Your task to perform on an android device: allow notifications from all sites in the chrome app Image 0: 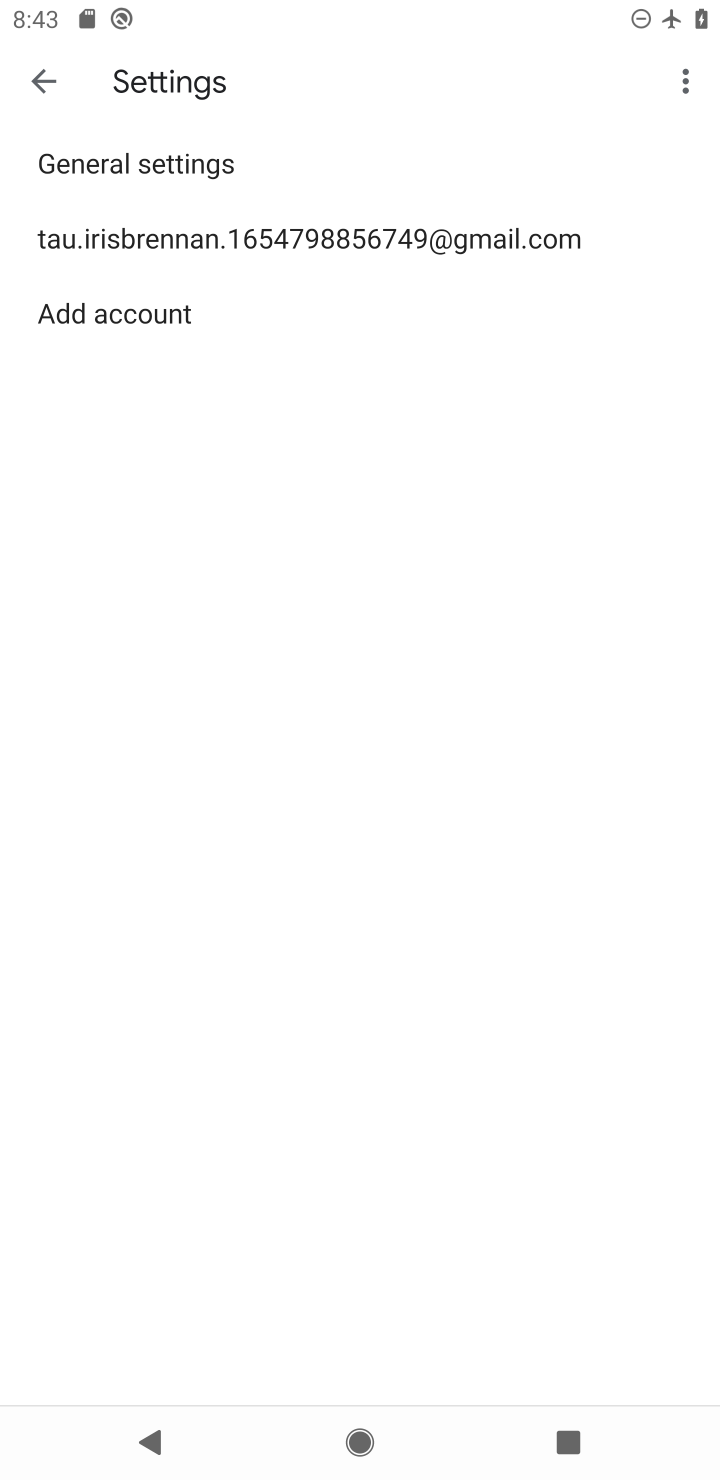
Step 0: press home button
Your task to perform on an android device: allow notifications from all sites in the chrome app Image 1: 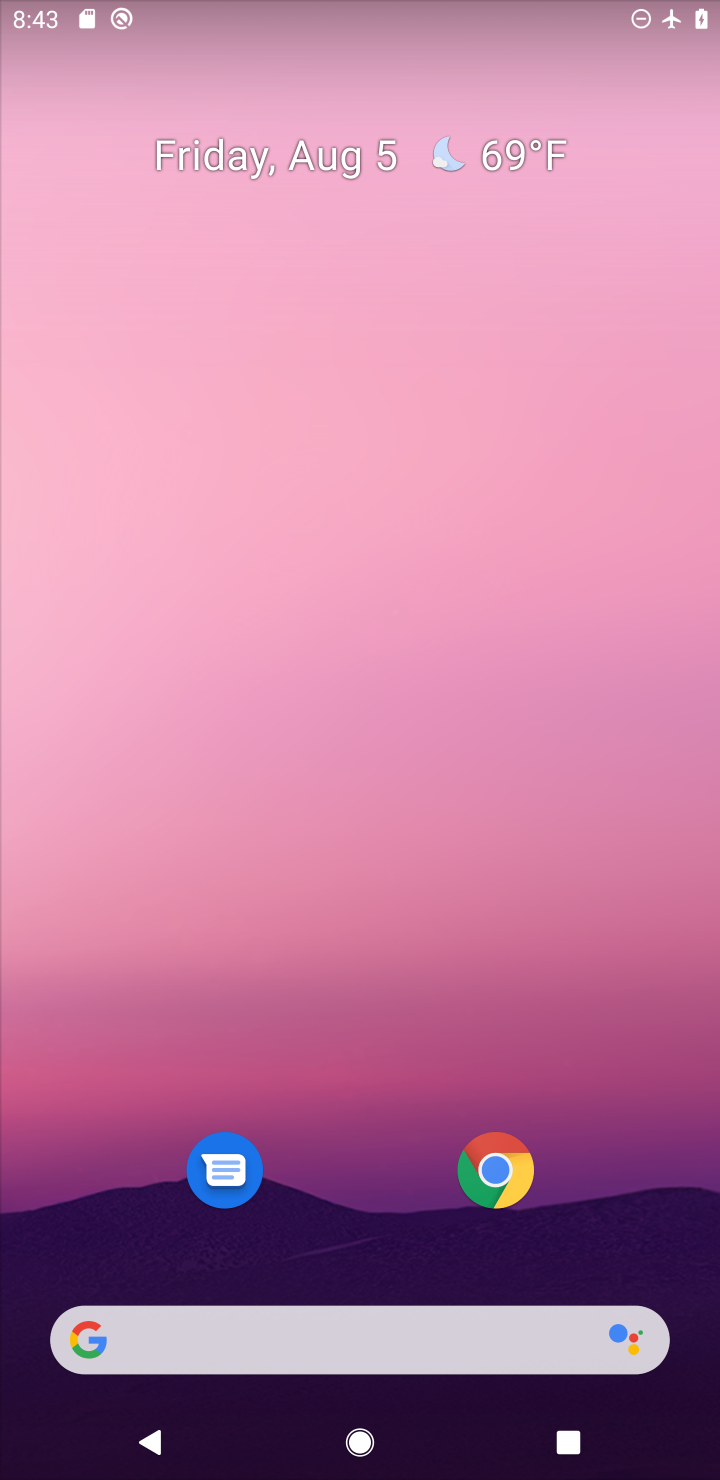
Step 1: click (509, 1178)
Your task to perform on an android device: allow notifications from all sites in the chrome app Image 2: 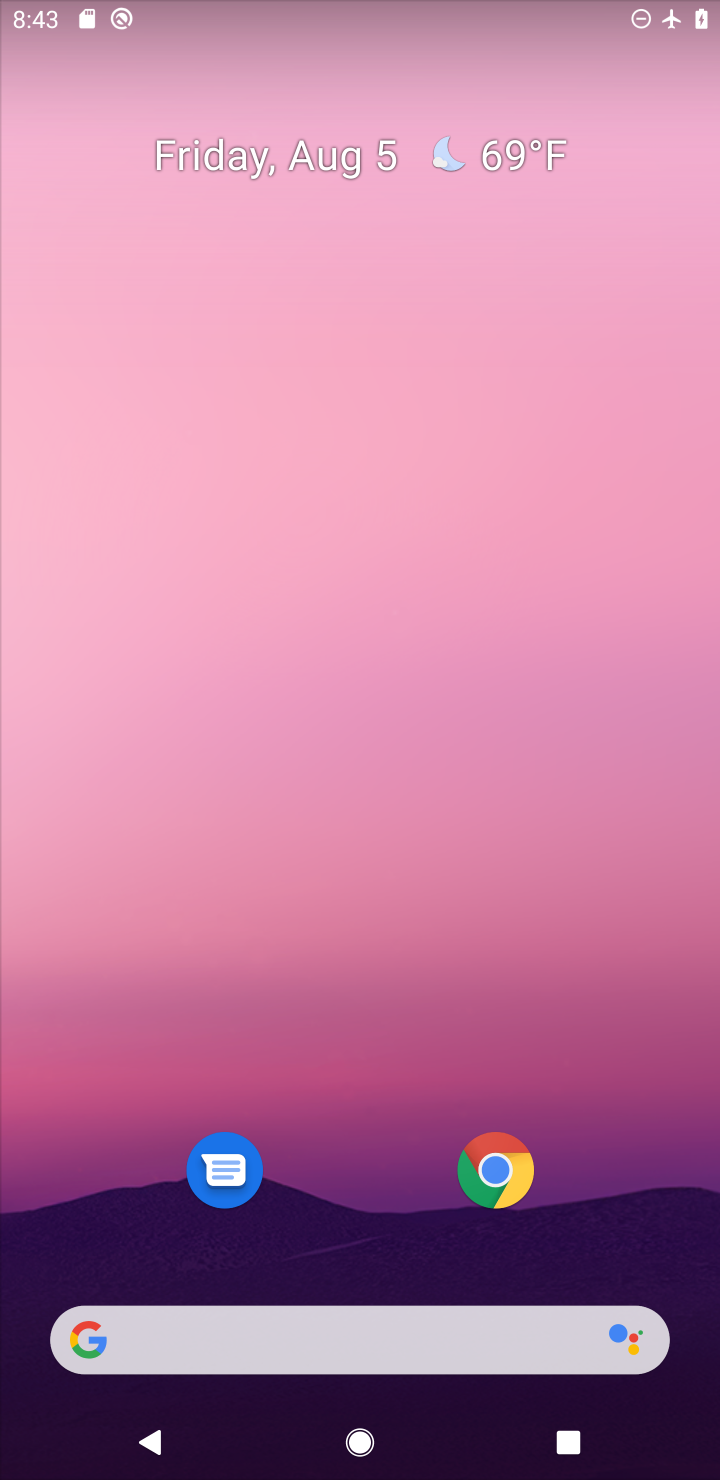
Step 2: click (503, 1177)
Your task to perform on an android device: allow notifications from all sites in the chrome app Image 3: 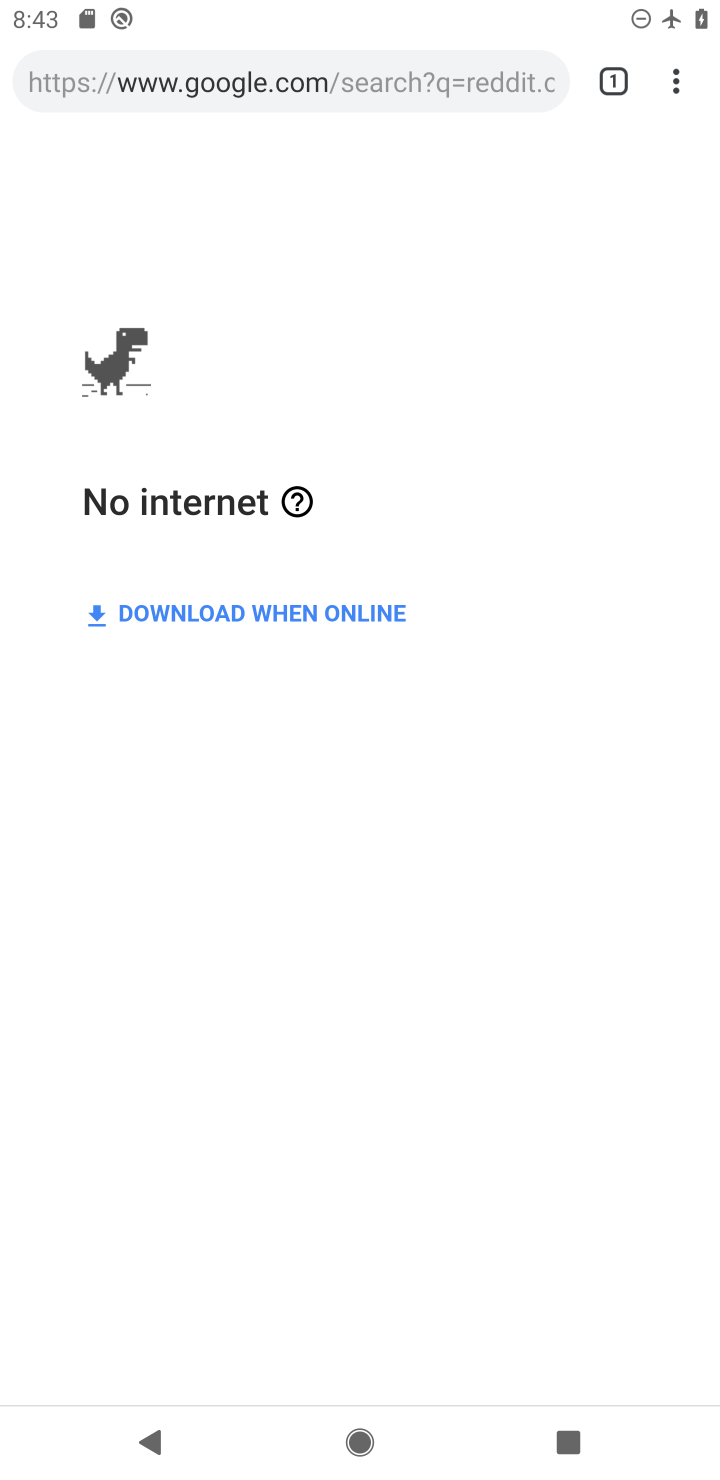
Step 3: click (667, 94)
Your task to perform on an android device: allow notifications from all sites in the chrome app Image 4: 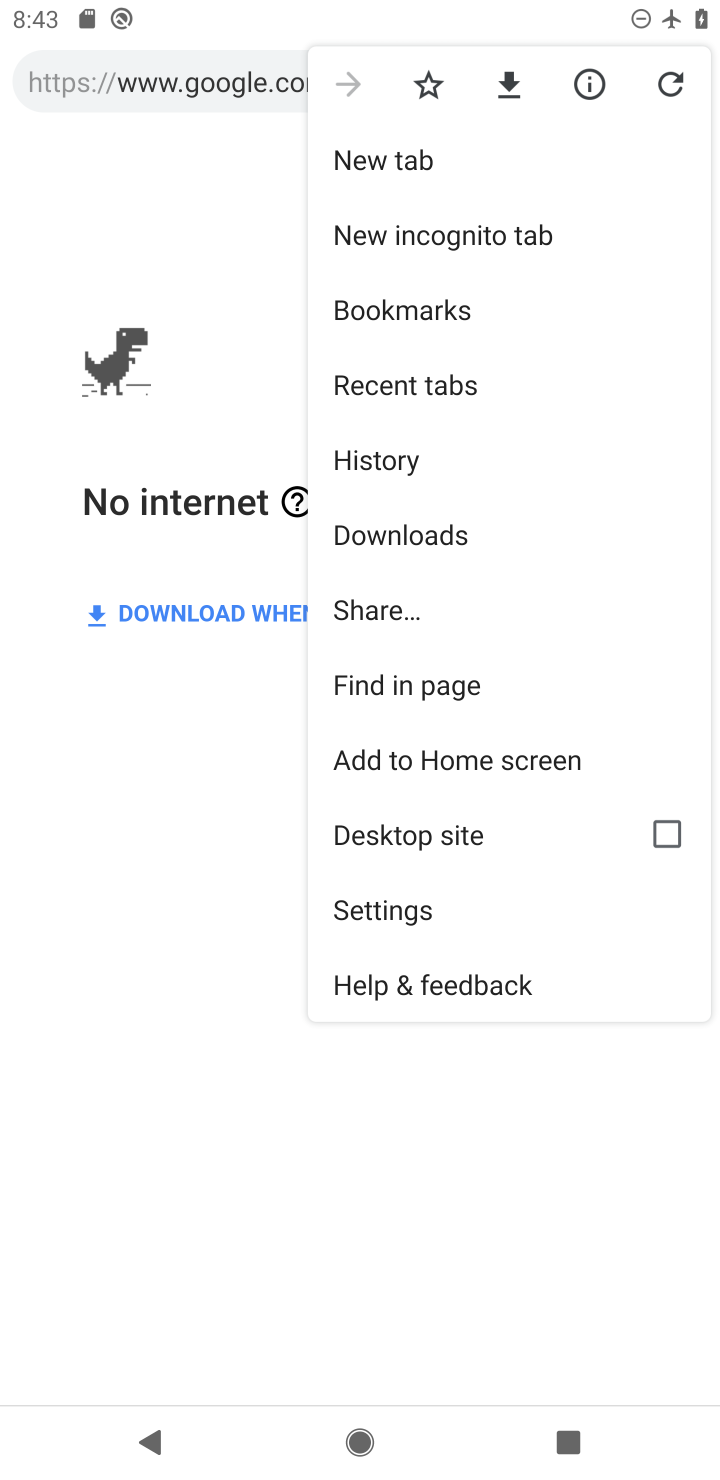
Step 4: click (385, 914)
Your task to perform on an android device: allow notifications from all sites in the chrome app Image 5: 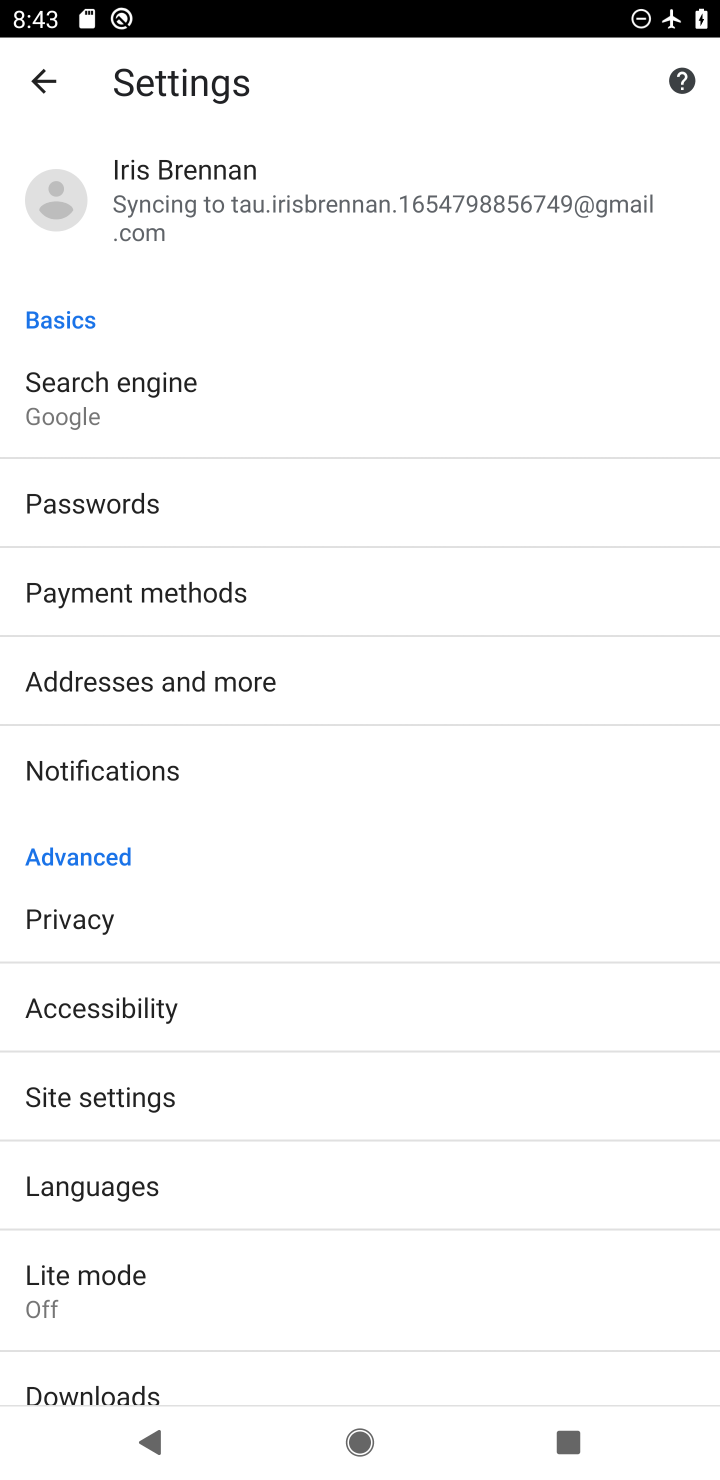
Step 5: click (87, 1089)
Your task to perform on an android device: allow notifications from all sites in the chrome app Image 6: 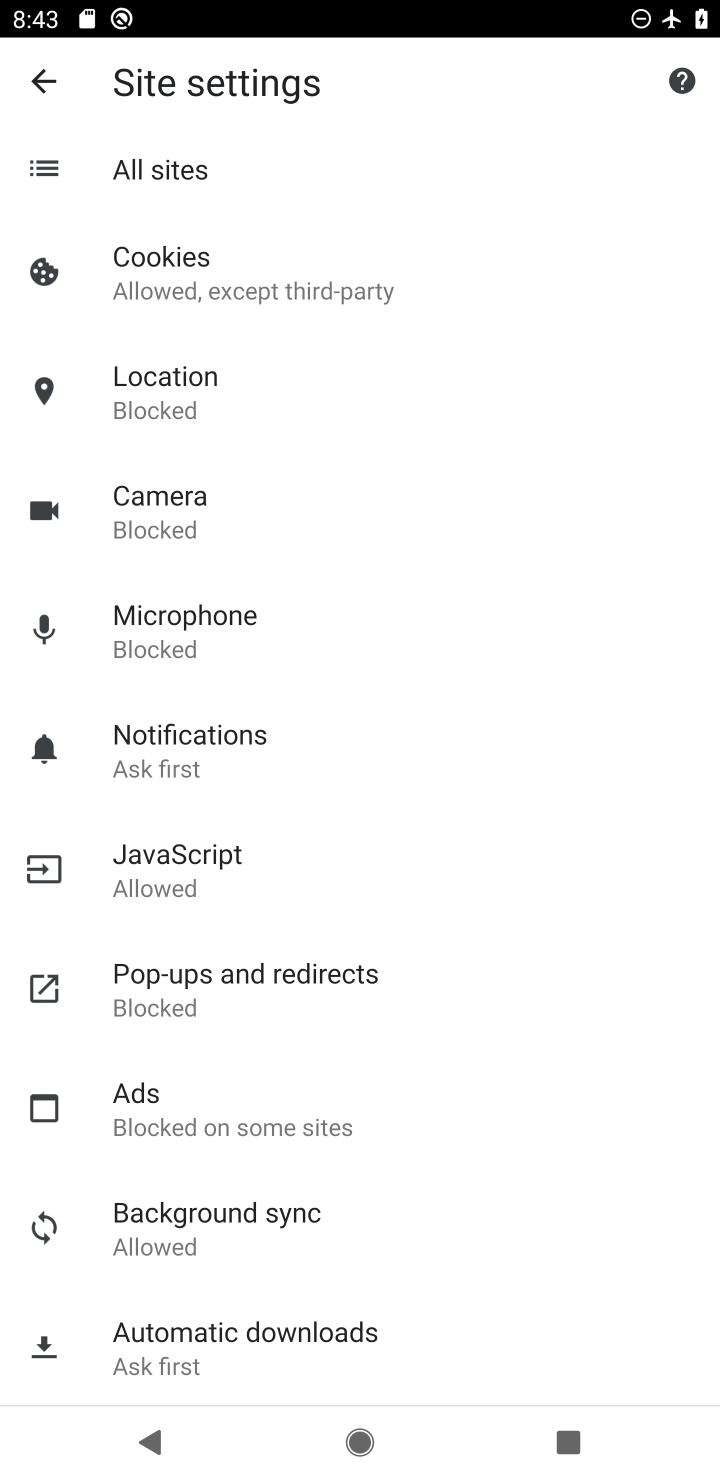
Step 6: click (166, 741)
Your task to perform on an android device: allow notifications from all sites in the chrome app Image 7: 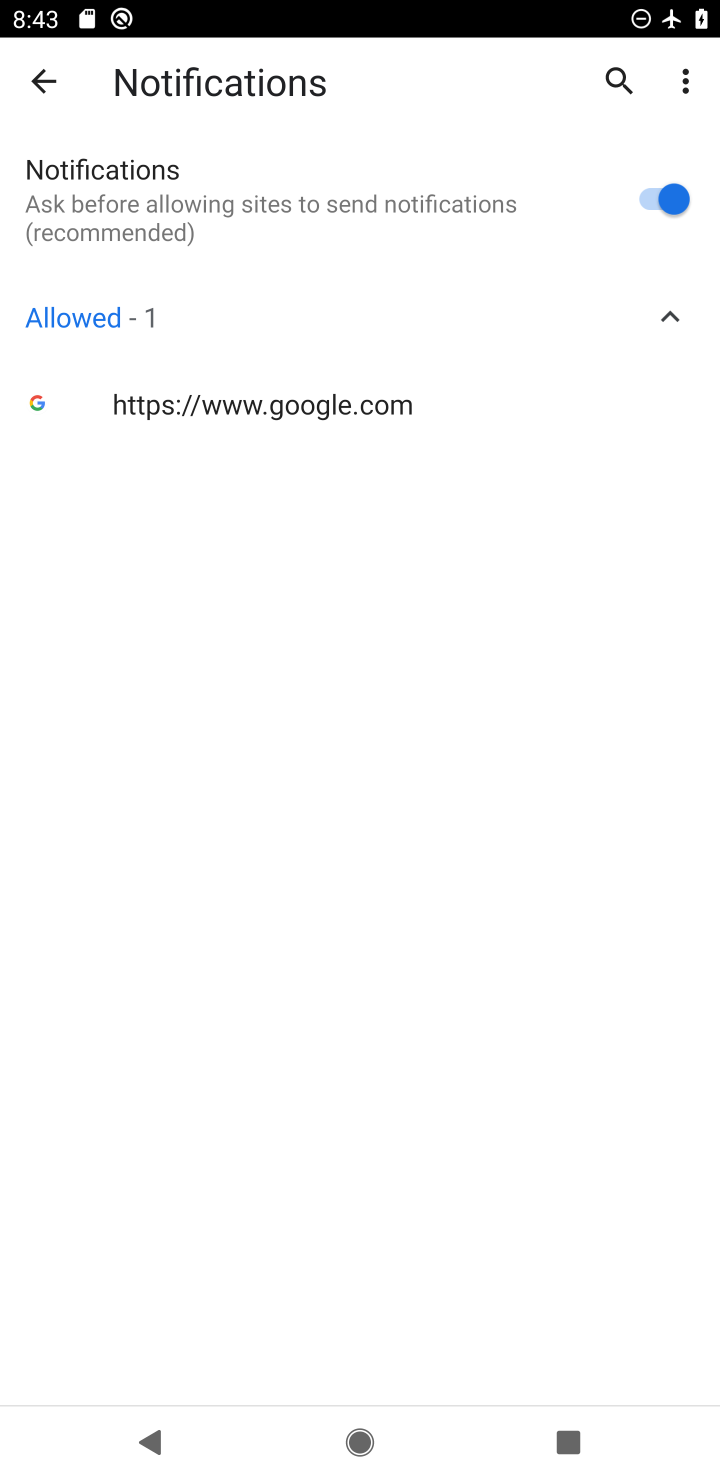
Step 7: task complete